Your task to perform on an android device: open device folders in google photos Image 0: 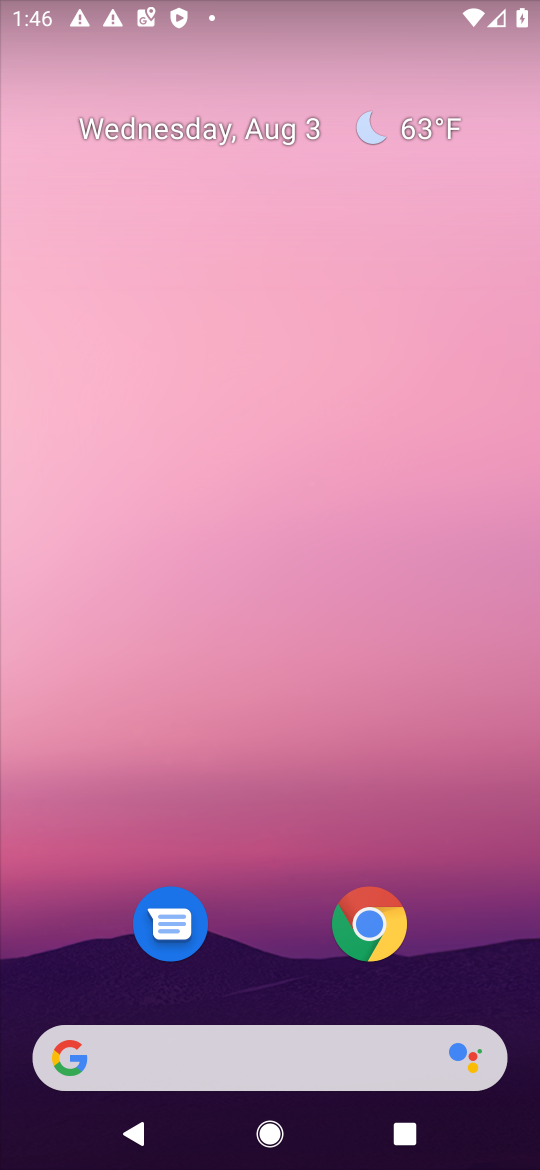
Step 0: press home button
Your task to perform on an android device: open device folders in google photos Image 1: 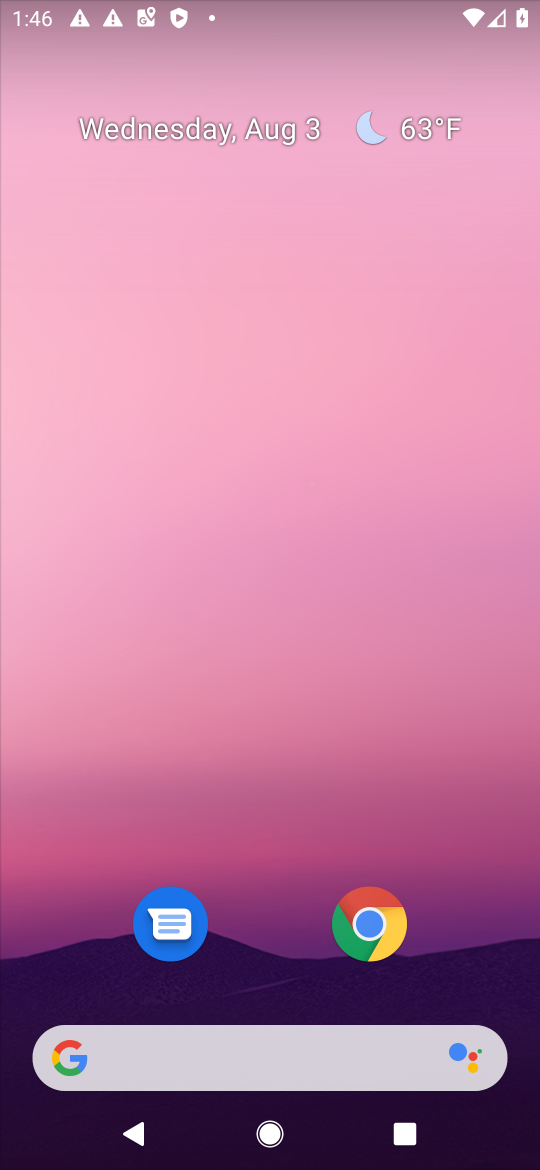
Step 1: drag from (270, 984) to (349, 5)
Your task to perform on an android device: open device folders in google photos Image 2: 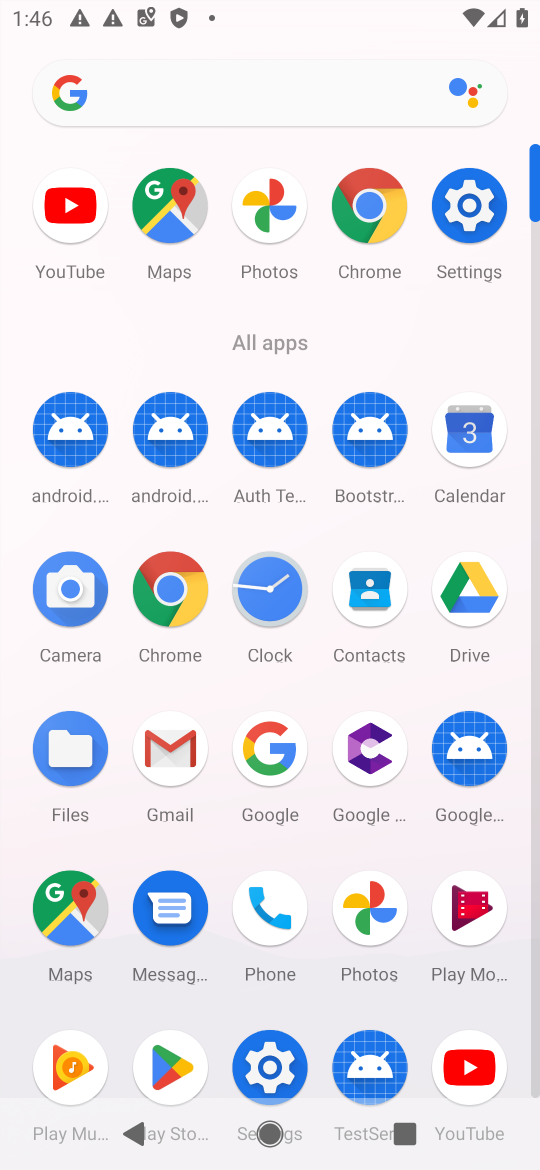
Step 2: click (372, 888)
Your task to perform on an android device: open device folders in google photos Image 3: 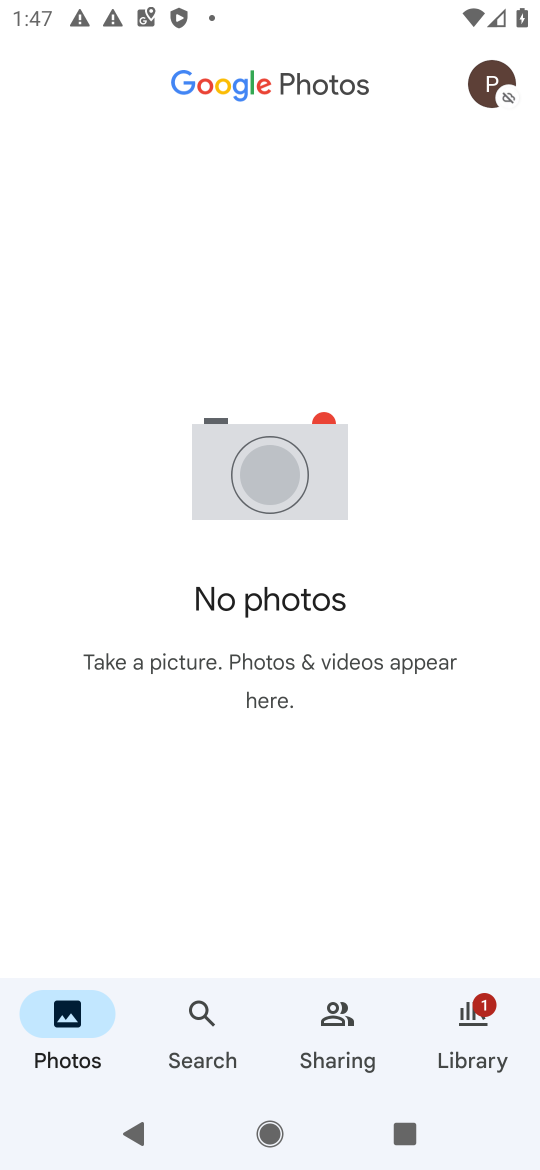
Step 3: click (188, 1005)
Your task to perform on an android device: open device folders in google photos Image 4: 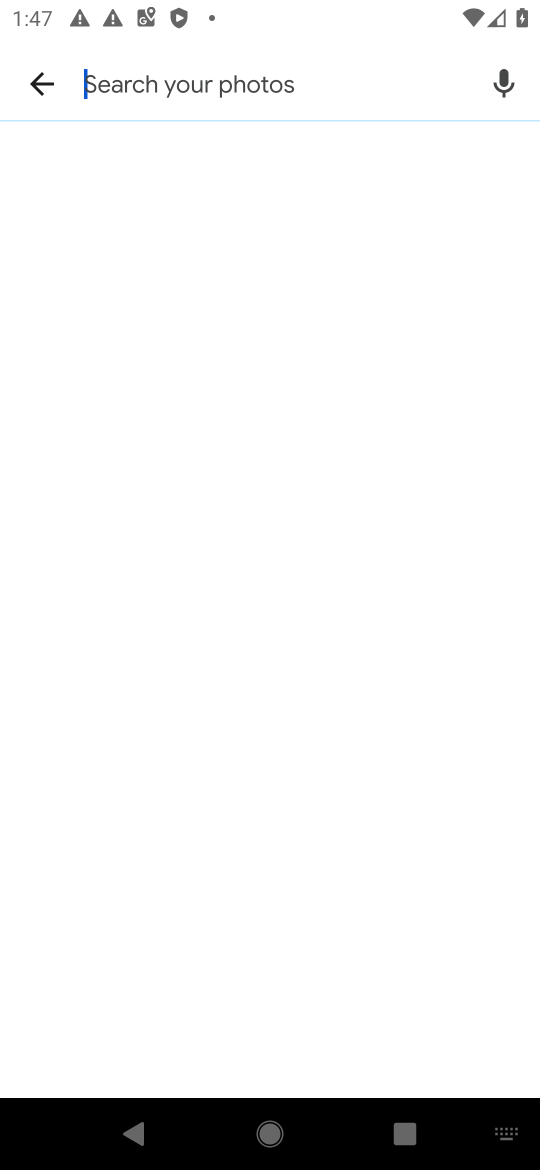
Step 4: type "device"
Your task to perform on an android device: open device folders in google photos Image 5: 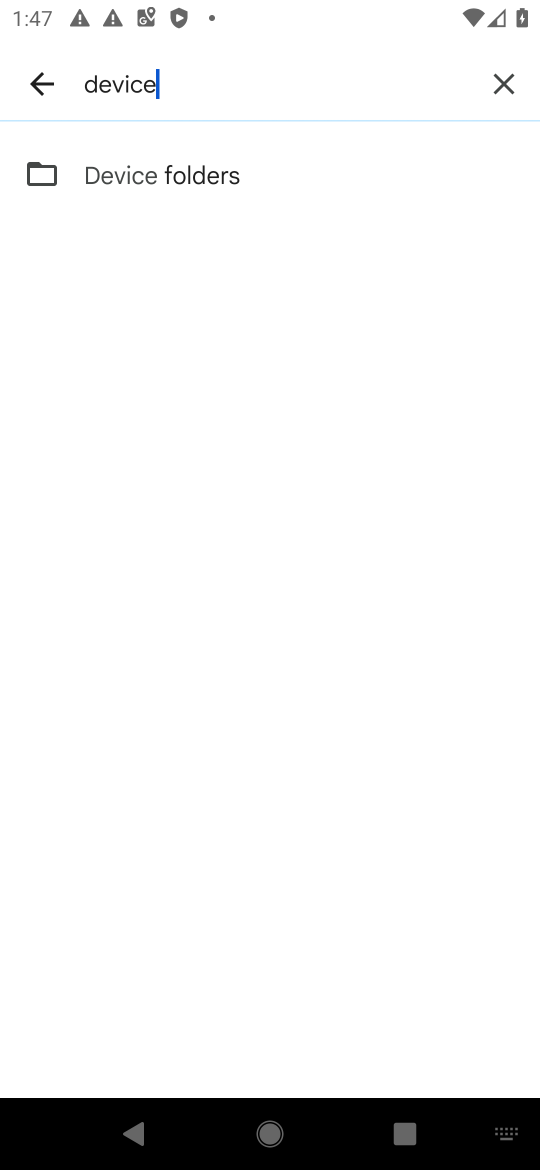
Step 5: type ""
Your task to perform on an android device: open device folders in google photos Image 6: 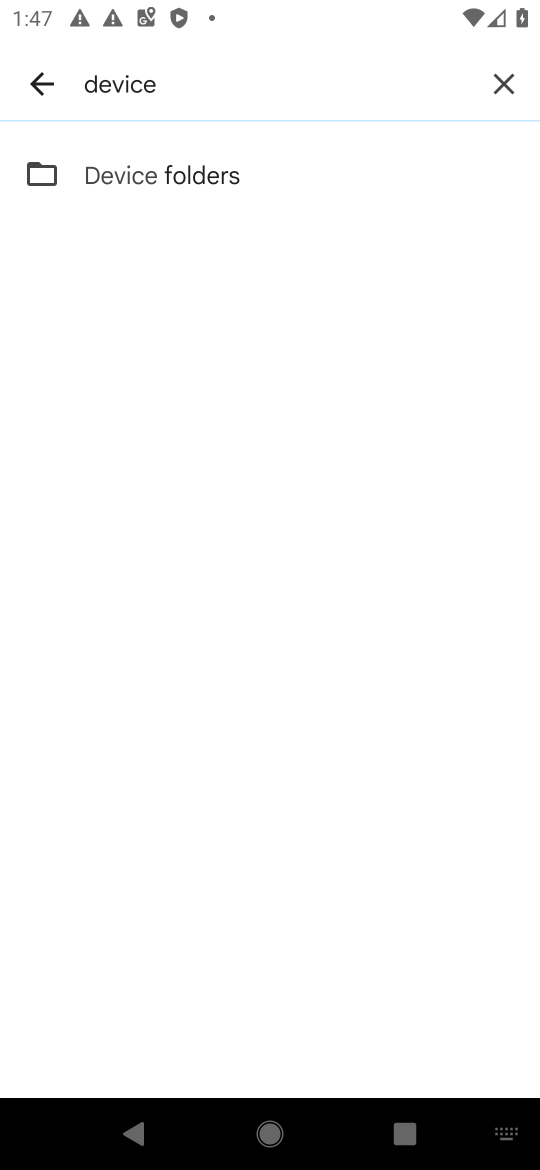
Step 6: click (162, 171)
Your task to perform on an android device: open device folders in google photos Image 7: 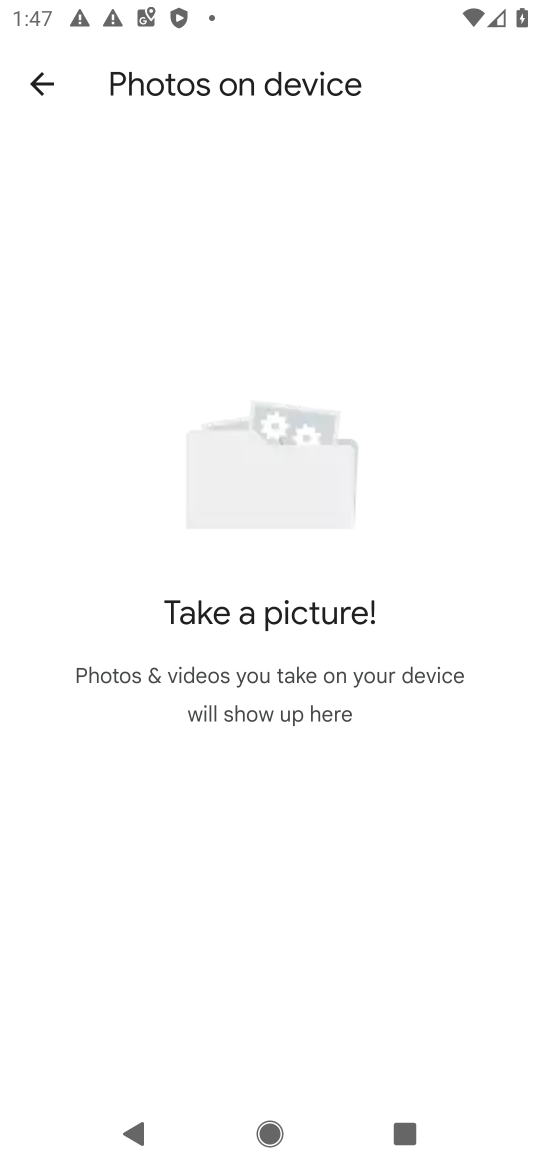
Step 7: task complete